Your task to perform on an android device: Open Wikipedia Image 0: 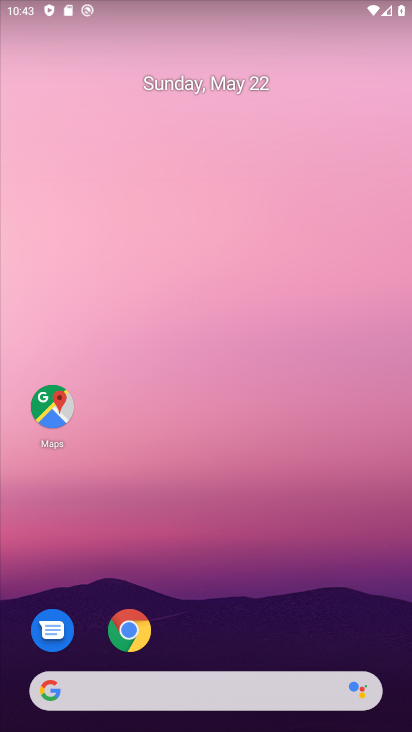
Step 0: drag from (380, 609) to (395, 199)
Your task to perform on an android device: Open Wikipedia Image 1: 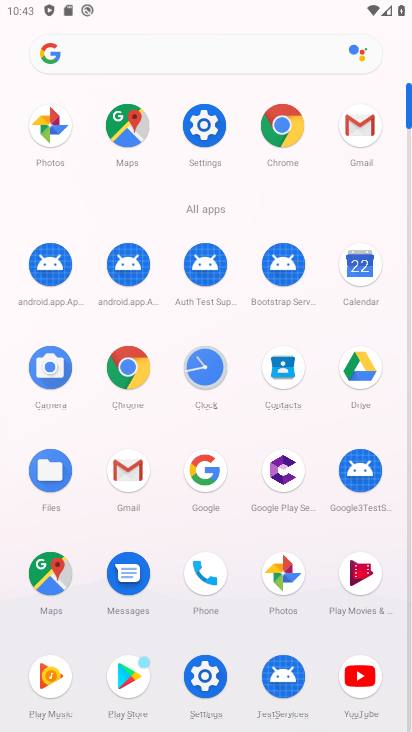
Step 1: click (129, 378)
Your task to perform on an android device: Open Wikipedia Image 2: 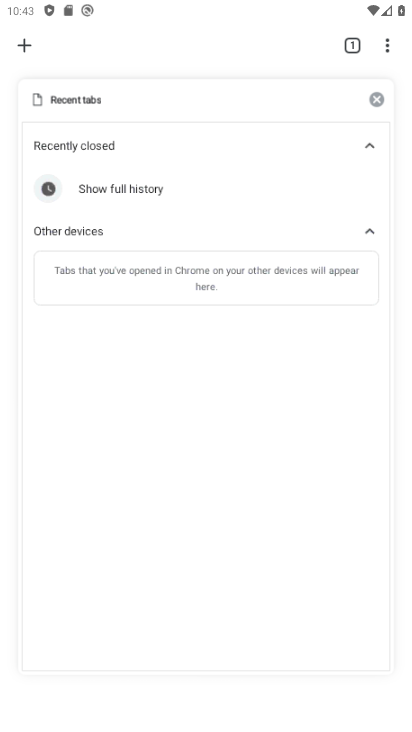
Step 2: press home button
Your task to perform on an android device: Open Wikipedia Image 3: 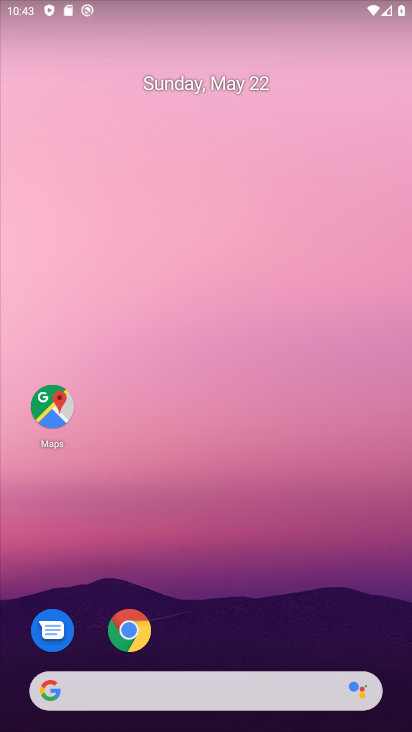
Step 3: drag from (360, 591) to (352, 243)
Your task to perform on an android device: Open Wikipedia Image 4: 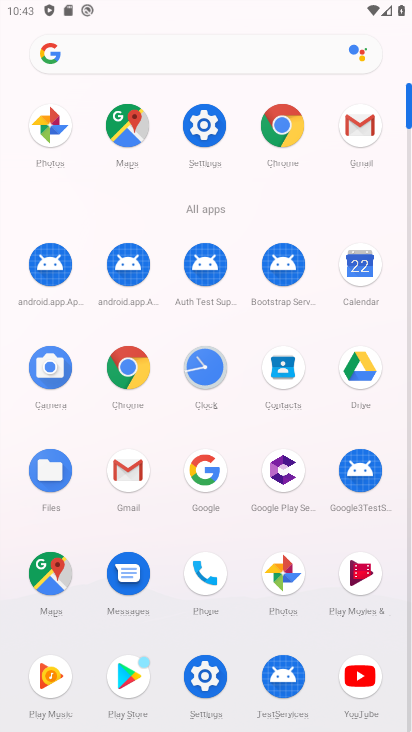
Step 4: click (119, 376)
Your task to perform on an android device: Open Wikipedia Image 5: 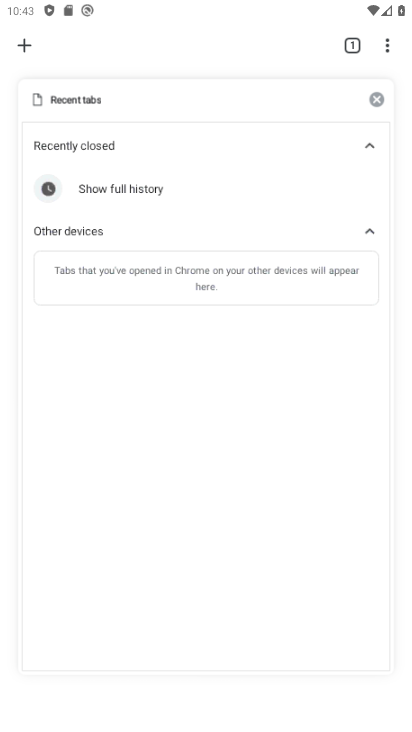
Step 5: press back button
Your task to perform on an android device: Open Wikipedia Image 6: 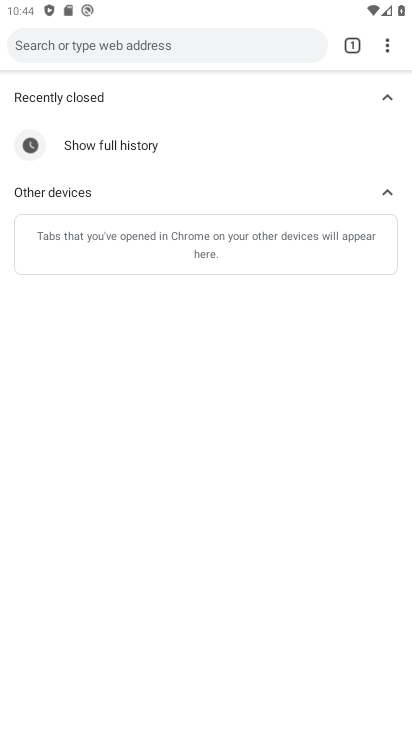
Step 6: press back button
Your task to perform on an android device: Open Wikipedia Image 7: 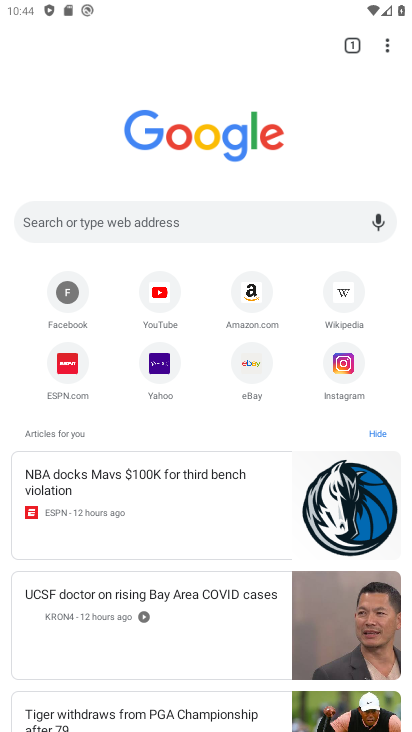
Step 7: click (336, 295)
Your task to perform on an android device: Open Wikipedia Image 8: 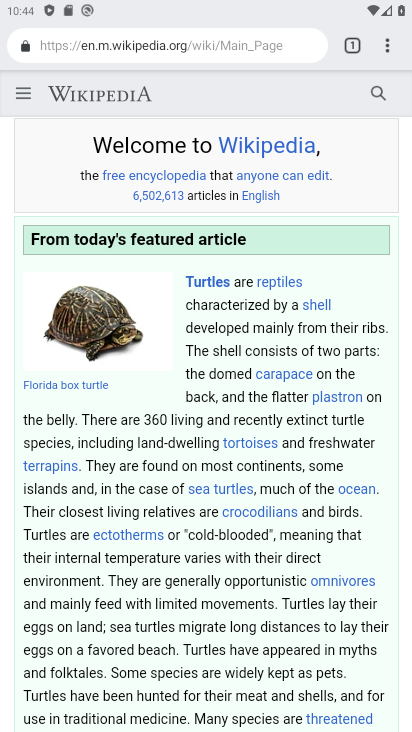
Step 8: task complete